Your task to perform on an android device: Go to settings Image 0: 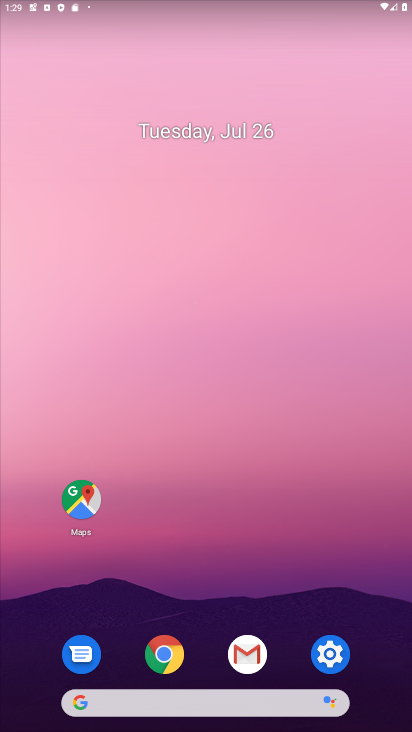
Step 0: click (346, 657)
Your task to perform on an android device: Go to settings Image 1: 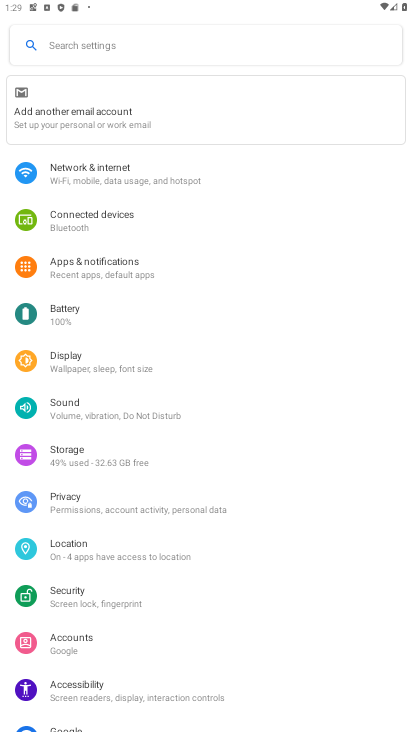
Step 1: task complete